Your task to perform on an android device: Add "apple airpods" to the cart on newegg.com, then select checkout. Image 0: 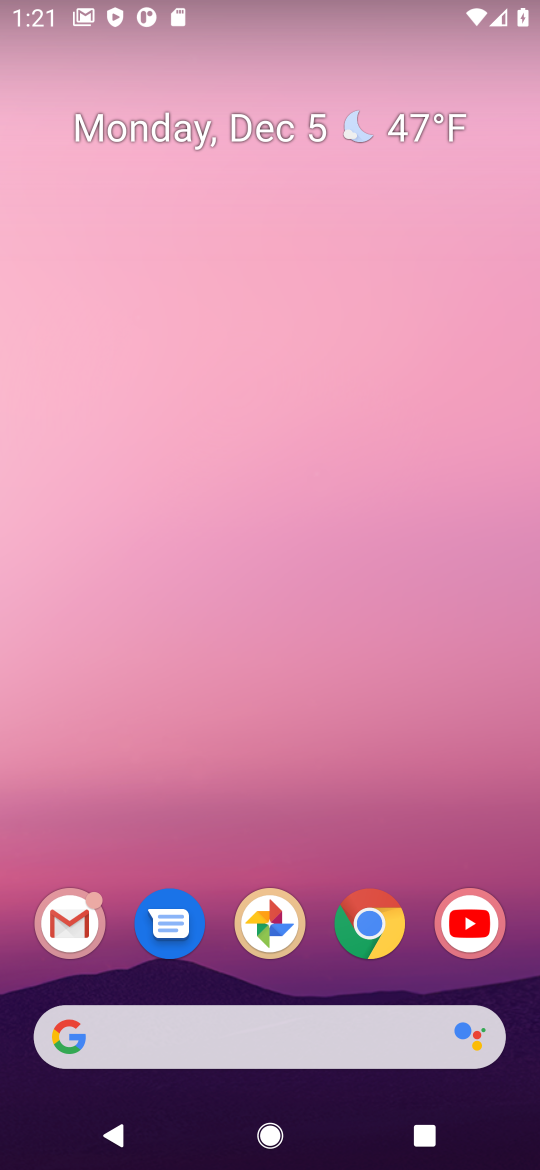
Step 0: click (246, 1034)
Your task to perform on an android device: Add "apple airpods" to the cart on newegg.com, then select checkout. Image 1: 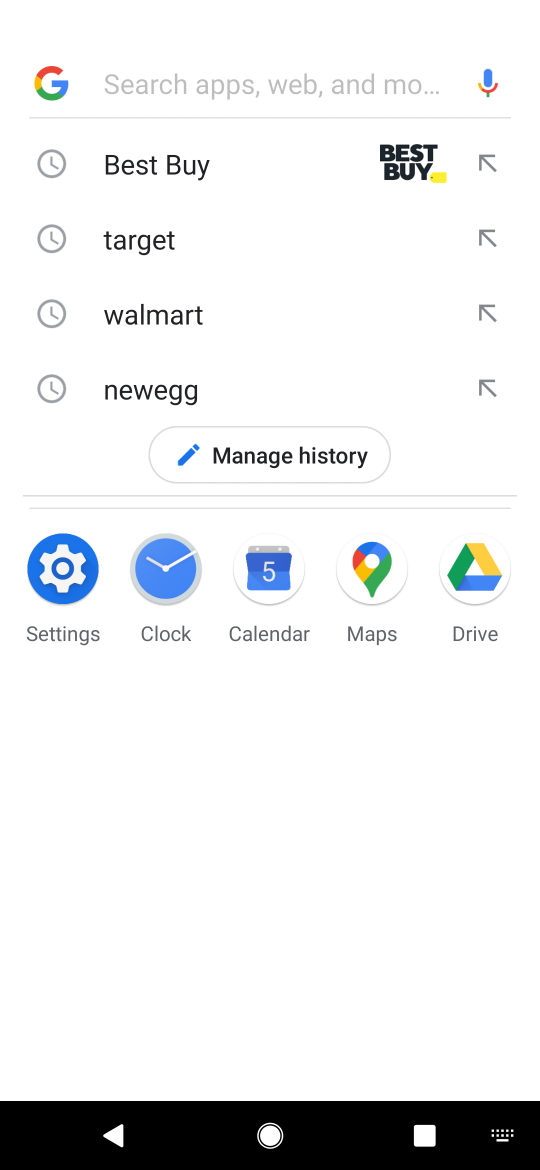
Step 1: click (136, 406)
Your task to perform on an android device: Add "apple airpods" to the cart on newegg.com, then select checkout. Image 2: 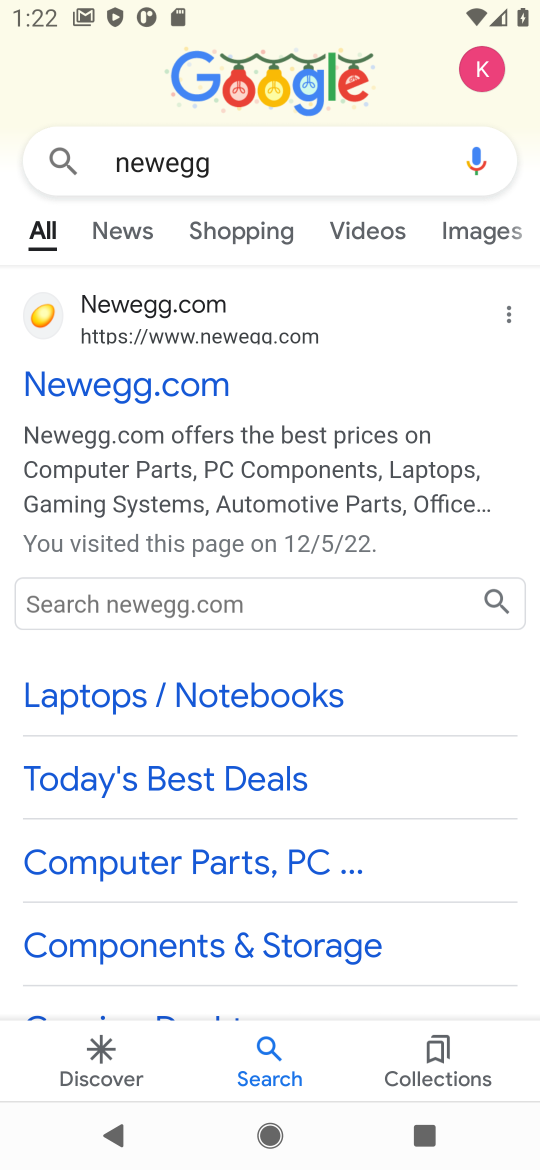
Step 2: click (117, 396)
Your task to perform on an android device: Add "apple airpods" to the cart on newegg.com, then select checkout. Image 3: 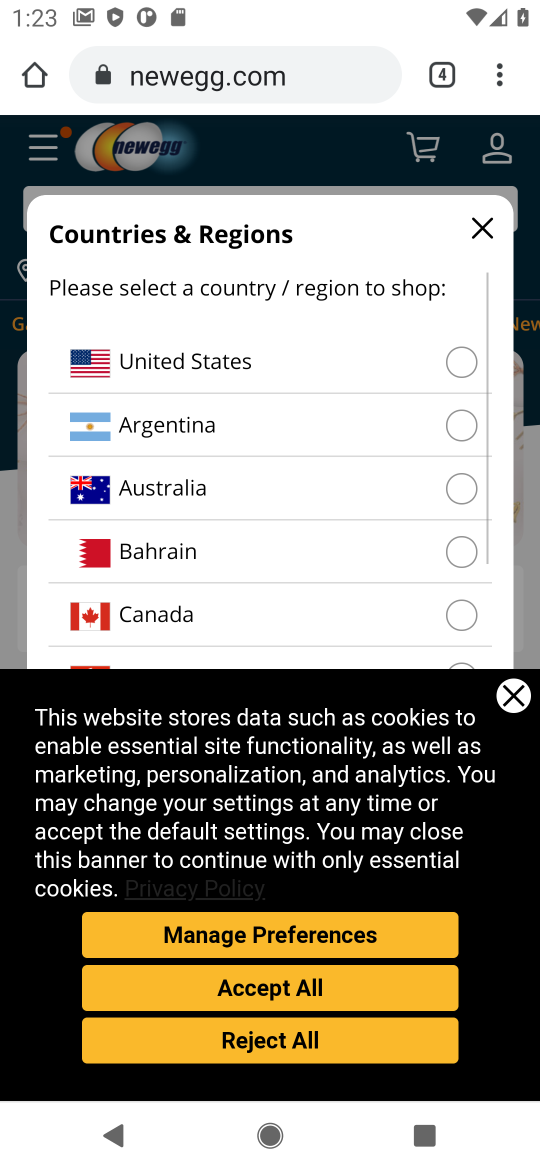
Step 3: task complete